Your task to perform on an android device: turn on location history Image 0: 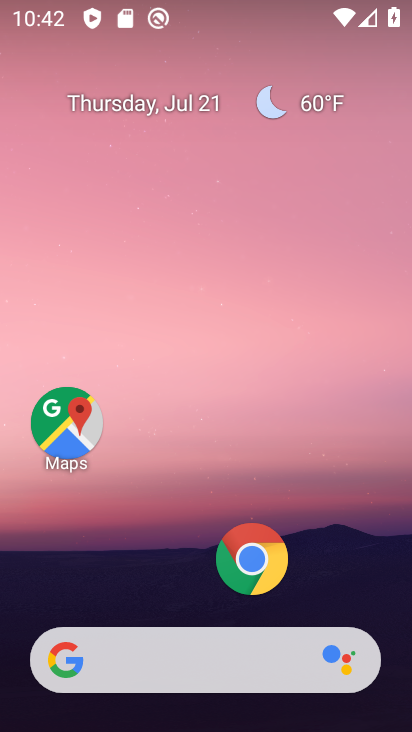
Step 0: drag from (181, 534) to (262, 46)
Your task to perform on an android device: turn on location history Image 1: 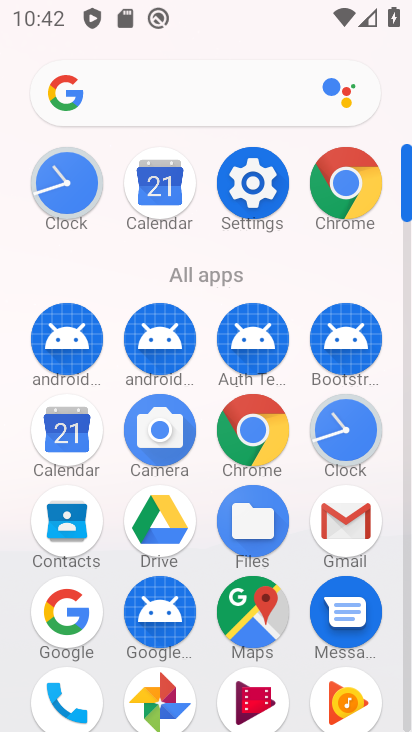
Step 1: click (236, 176)
Your task to perform on an android device: turn on location history Image 2: 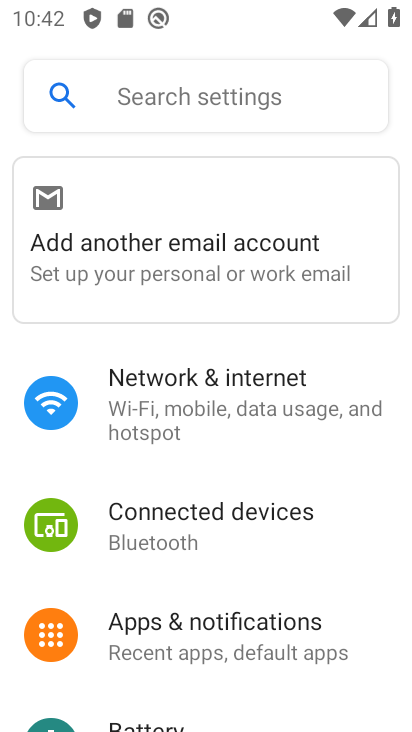
Step 2: drag from (132, 624) to (198, 187)
Your task to perform on an android device: turn on location history Image 3: 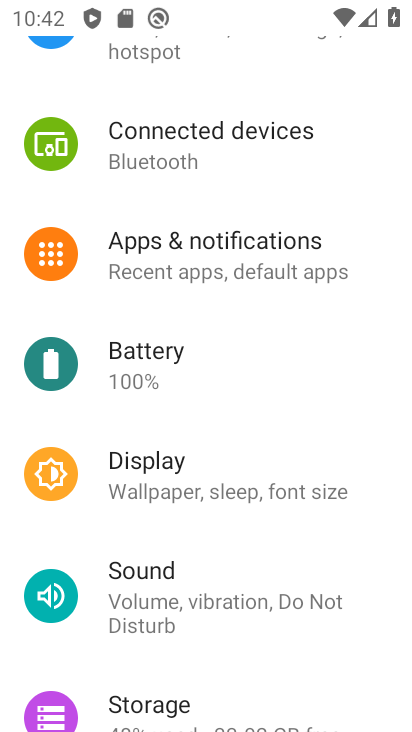
Step 3: drag from (167, 639) to (246, 134)
Your task to perform on an android device: turn on location history Image 4: 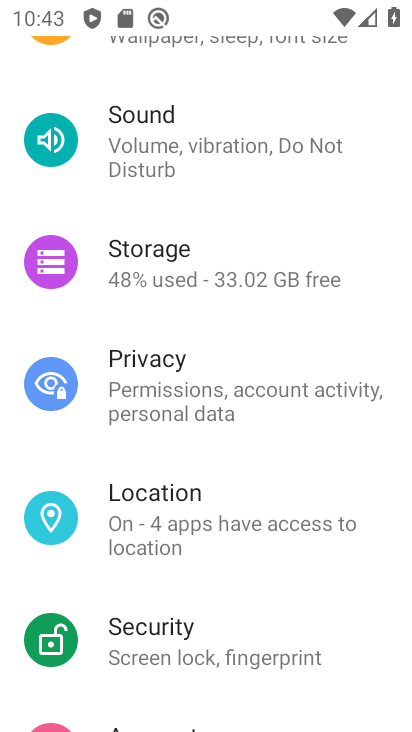
Step 4: click (164, 507)
Your task to perform on an android device: turn on location history Image 5: 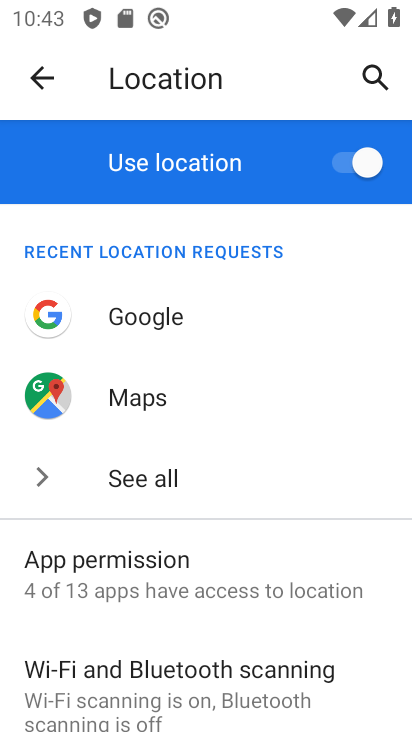
Step 5: drag from (149, 656) to (213, 252)
Your task to perform on an android device: turn on location history Image 6: 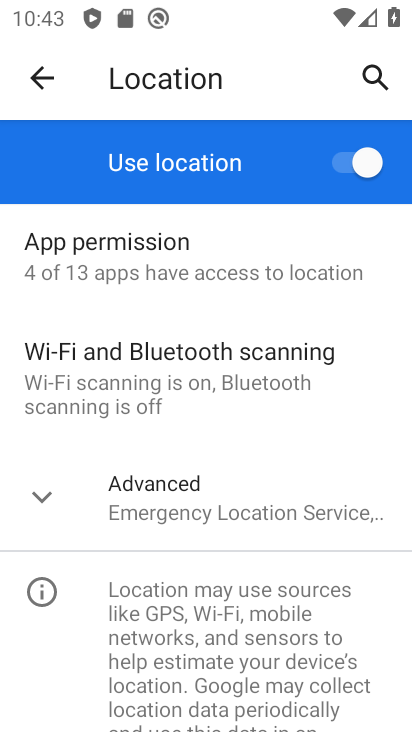
Step 6: click (193, 517)
Your task to perform on an android device: turn on location history Image 7: 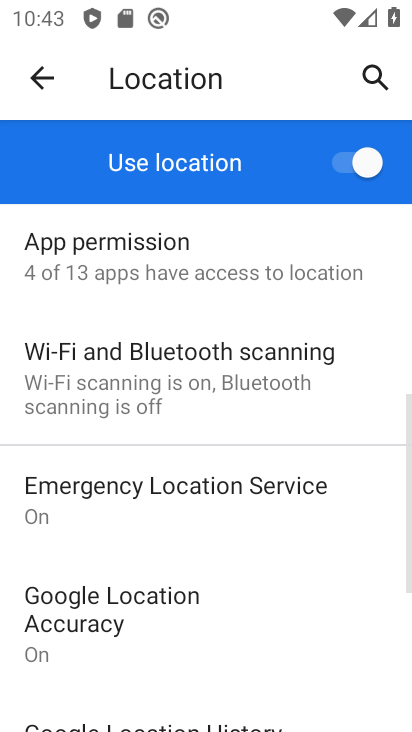
Step 7: drag from (133, 635) to (207, 262)
Your task to perform on an android device: turn on location history Image 8: 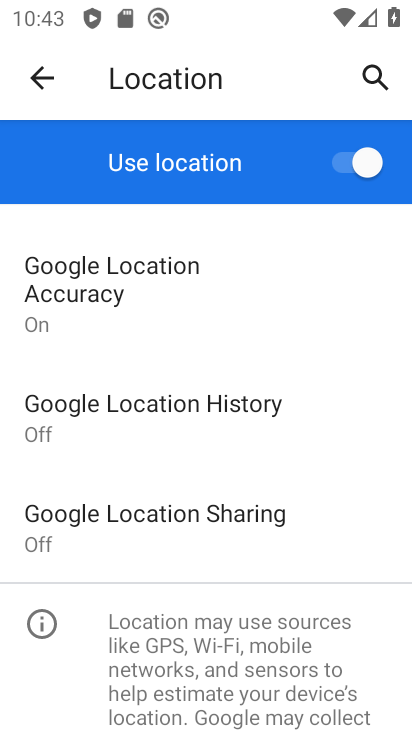
Step 8: click (183, 406)
Your task to perform on an android device: turn on location history Image 9: 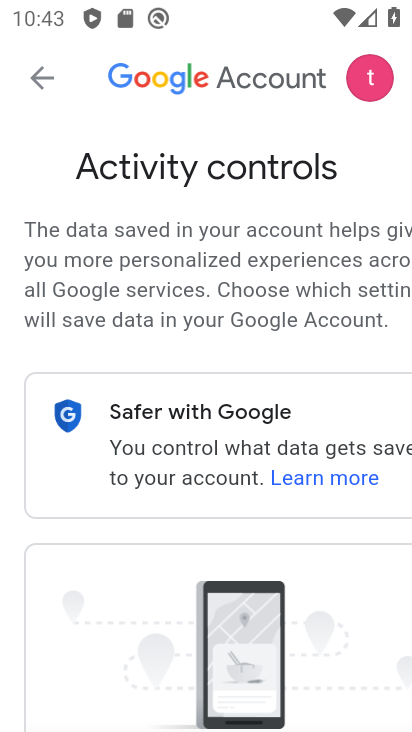
Step 9: drag from (222, 628) to (275, 26)
Your task to perform on an android device: turn on location history Image 10: 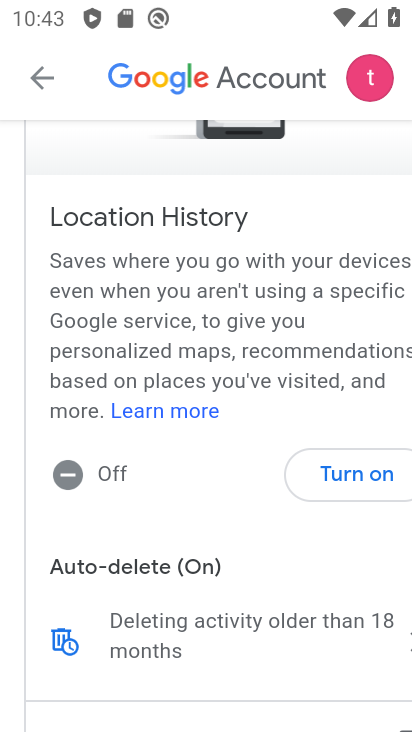
Step 10: click (345, 467)
Your task to perform on an android device: turn on location history Image 11: 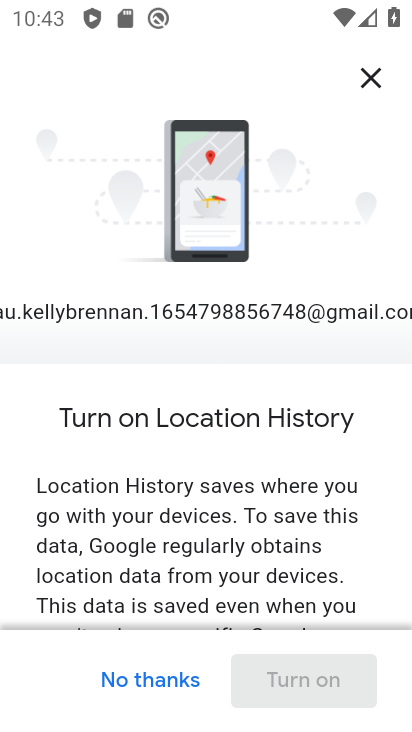
Step 11: drag from (249, 591) to (282, 14)
Your task to perform on an android device: turn on location history Image 12: 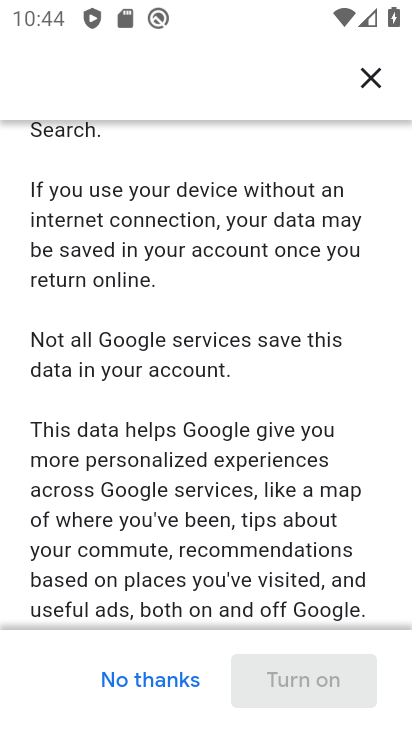
Step 12: drag from (146, 602) to (254, 1)
Your task to perform on an android device: turn on location history Image 13: 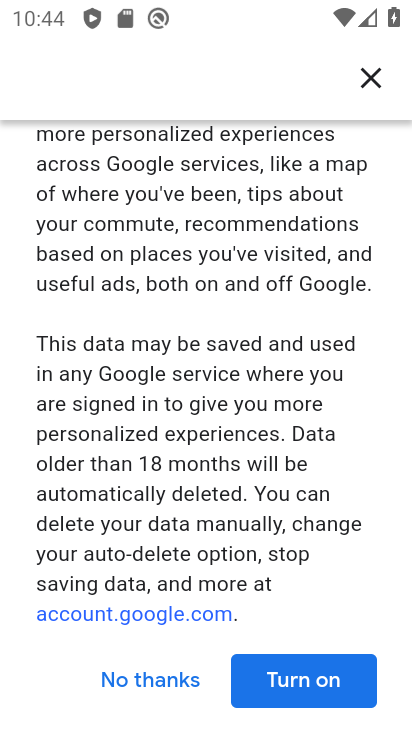
Step 13: click (278, 694)
Your task to perform on an android device: turn on location history Image 14: 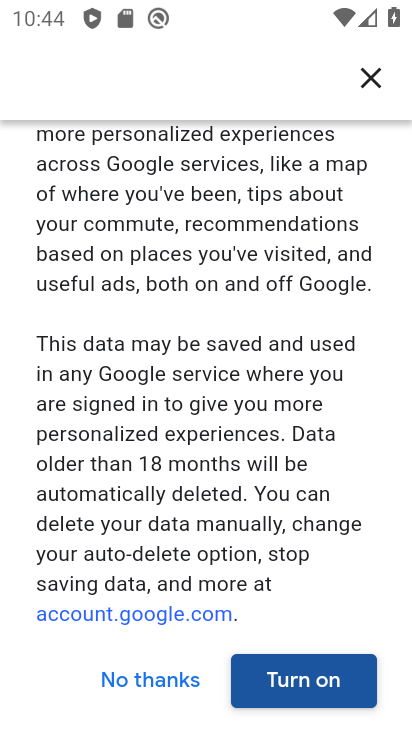
Step 14: click (328, 677)
Your task to perform on an android device: turn on location history Image 15: 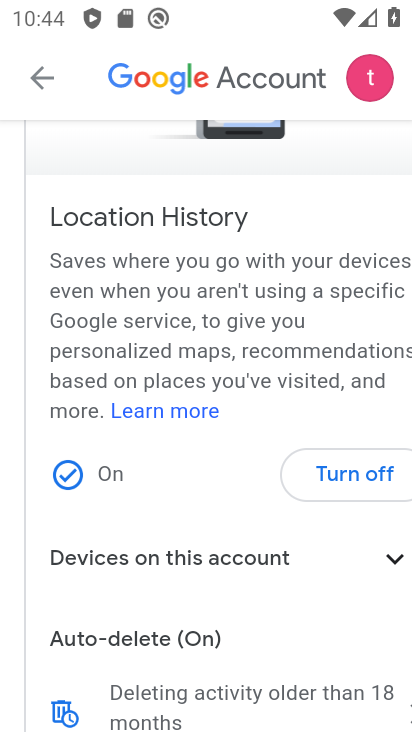
Step 15: task complete